Your task to perform on an android device: Find coffee shops on Maps Image 0: 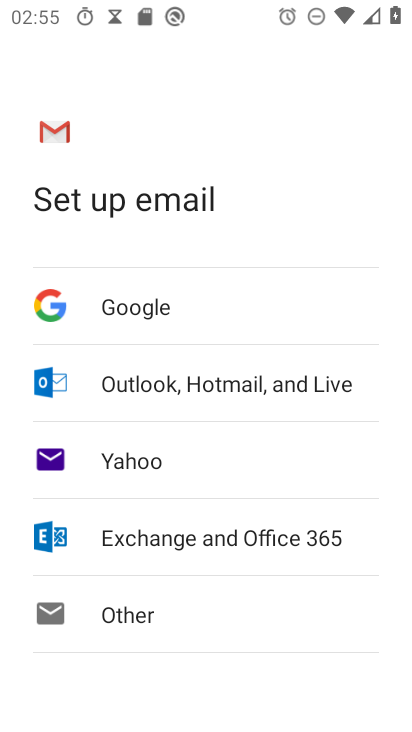
Step 0: press home button
Your task to perform on an android device: Find coffee shops on Maps Image 1: 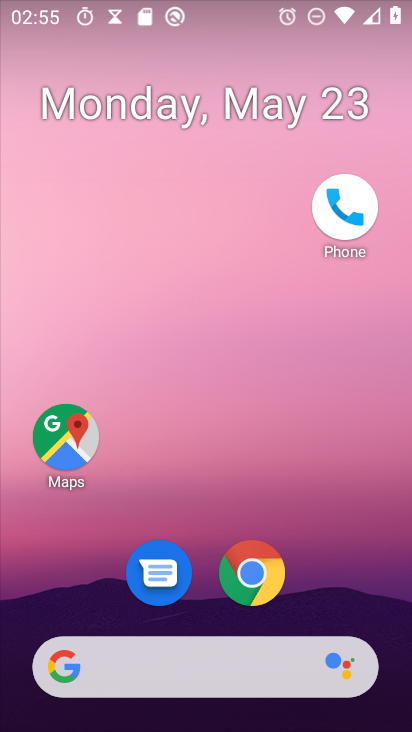
Step 1: drag from (194, 627) to (290, 512)
Your task to perform on an android device: Find coffee shops on Maps Image 2: 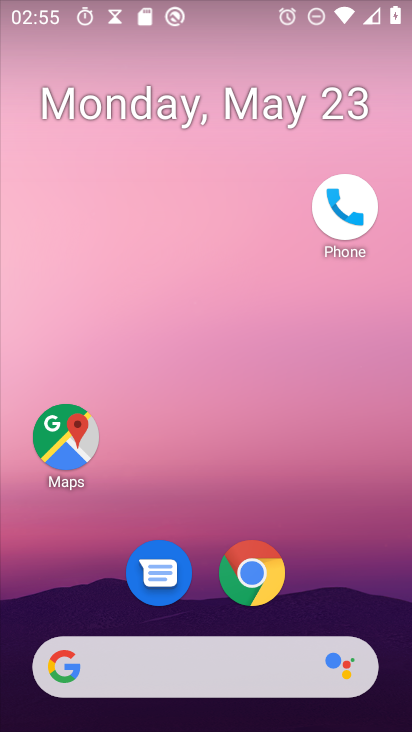
Step 2: click (60, 446)
Your task to perform on an android device: Find coffee shops on Maps Image 3: 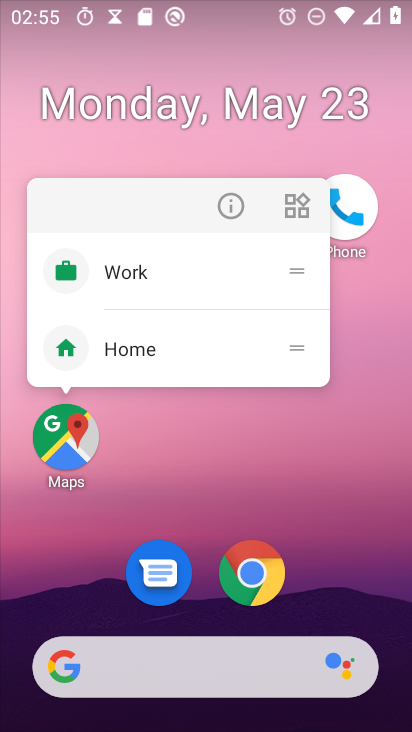
Step 3: click (73, 443)
Your task to perform on an android device: Find coffee shops on Maps Image 4: 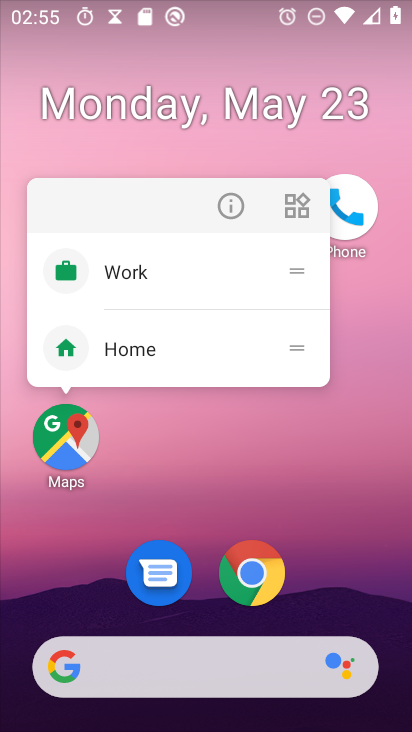
Step 4: click (64, 451)
Your task to perform on an android device: Find coffee shops on Maps Image 5: 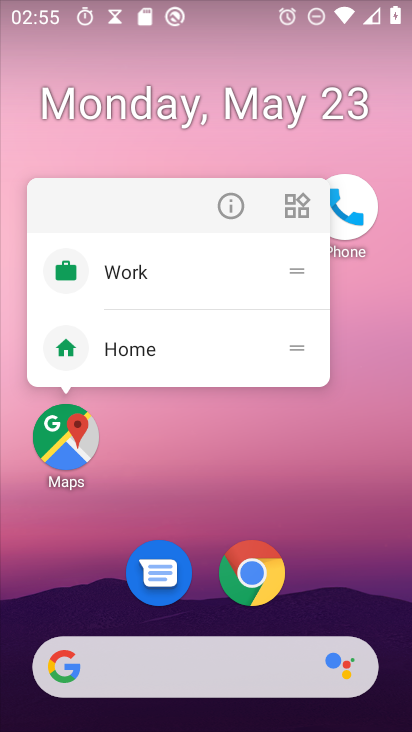
Step 5: click (59, 463)
Your task to perform on an android device: Find coffee shops on Maps Image 6: 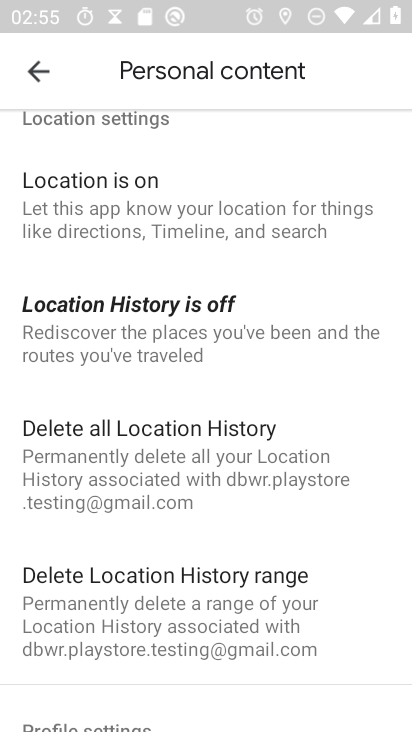
Step 6: click (45, 81)
Your task to perform on an android device: Find coffee shops on Maps Image 7: 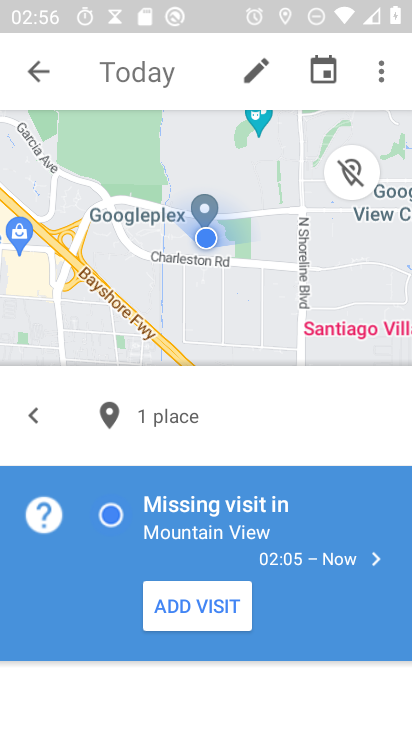
Step 7: click (38, 64)
Your task to perform on an android device: Find coffee shops on Maps Image 8: 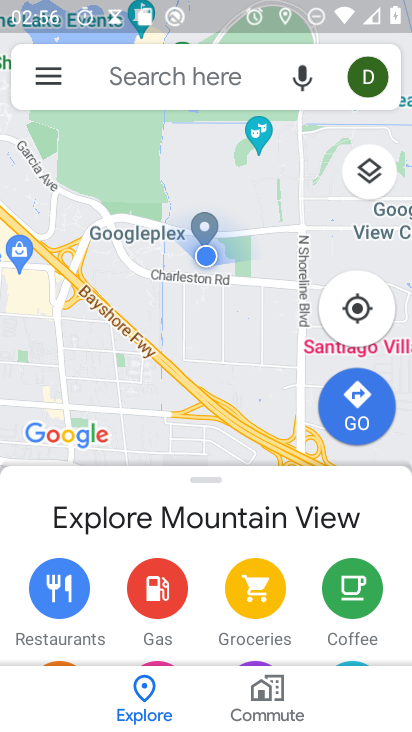
Step 8: click (154, 76)
Your task to perform on an android device: Find coffee shops on Maps Image 9: 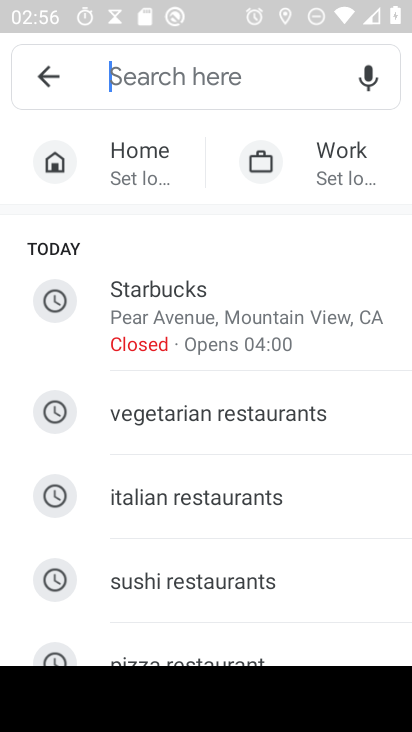
Step 9: type "coffee"
Your task to perform on an android device: Find coffee shops on Maps Image 10: 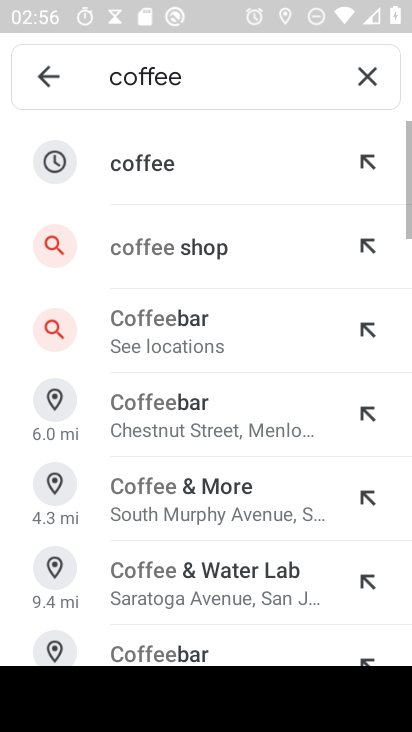
Step 10: click (224, 249)
Your task to perform on an android device: Find coffee shops on Maps Image 11: 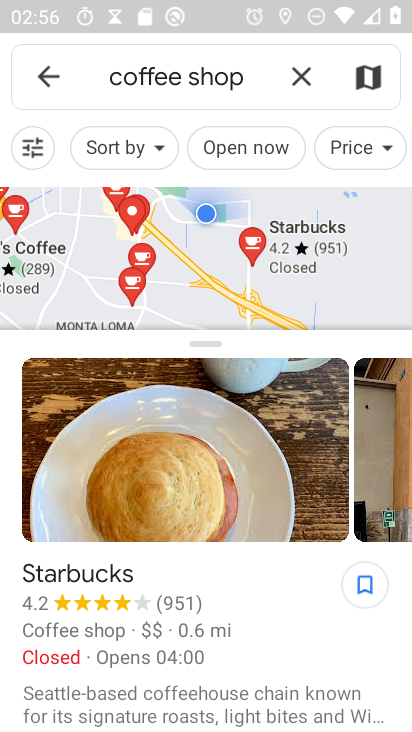
Step 11: task complete